Your task to perform on an android device: turn off data saver in the chrome app Image 0: 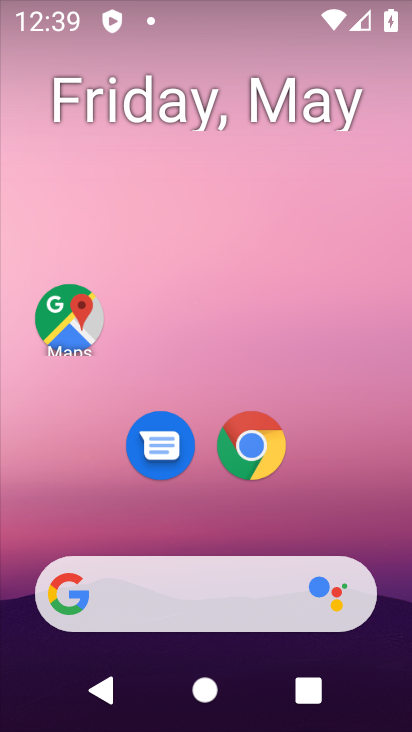
Step 0: click (254, 445)
Your task to perform on an android device: turn off data saver in the chrome app Image 1: 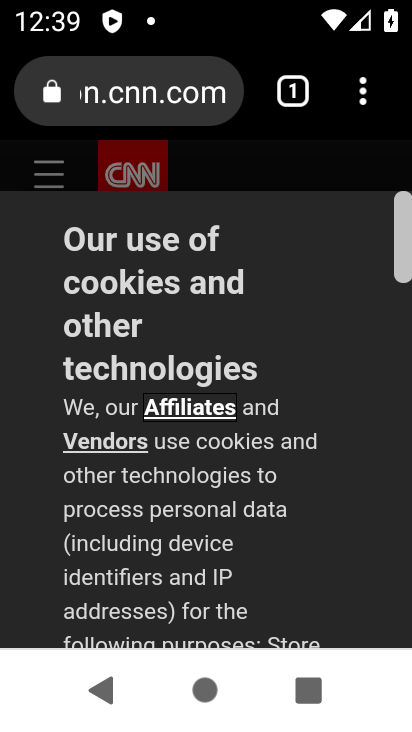
Step 1: click (358, 85)
Your task to perform on an android device: turn off data saver in the chrome app Image 2: 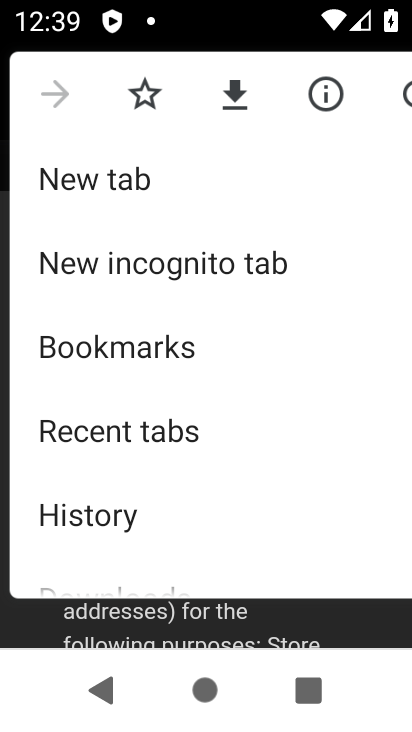
Step 2: drag from (242, 569) to (286, 167)
Your task to perform on an android device: turn off data saver in the chrome app Image 3: 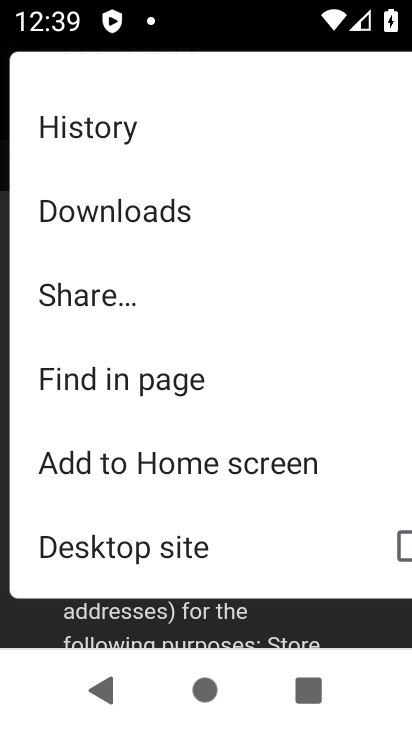
Step 3: drag from (280, 536) to (334, 78)
Your task to perform on an android device: turn off data saver in the chrome app Image 4: 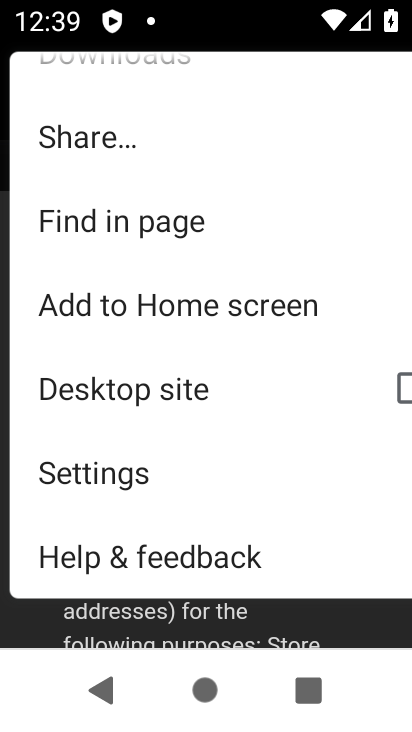
Step 4: click (114, 465)
Your task to perform on an android device: turn off data saver in the chrome app Image 5: 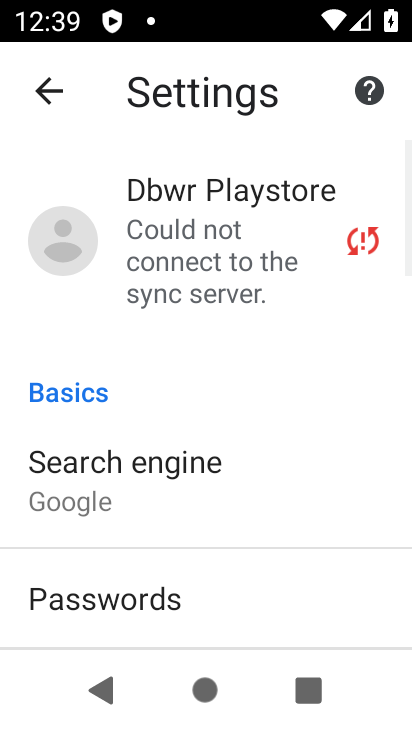
Step 5: drag from (267, 576) to (238, 183)
Your task to perform on an android device: turn off data saver in the chrome app Image 6: 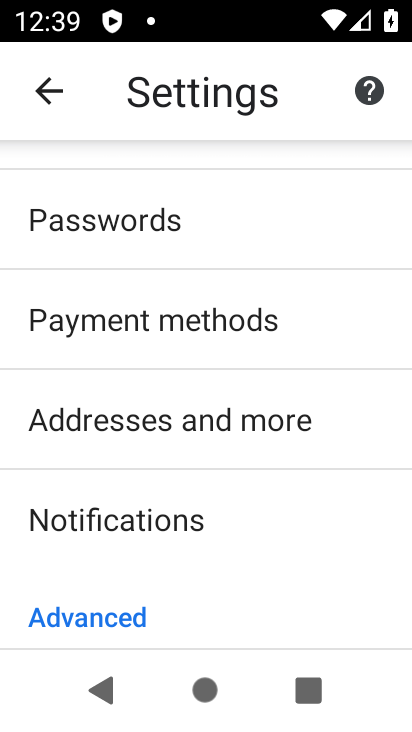
Step 6: drag from (242, 581) to (329, 130)
Your task to perform on an android device: turn off data saver in the chrome app Image 7: 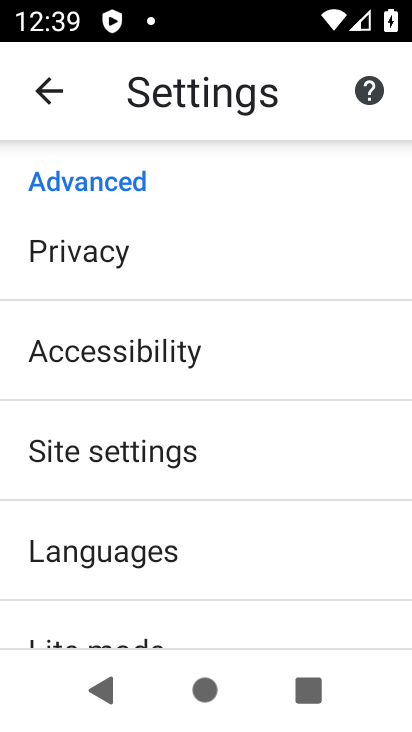
Step 7: drag from (276, 612) to (292, 260)
Your task to perform on an android device: turn off data saver in the chrome app Image 8: 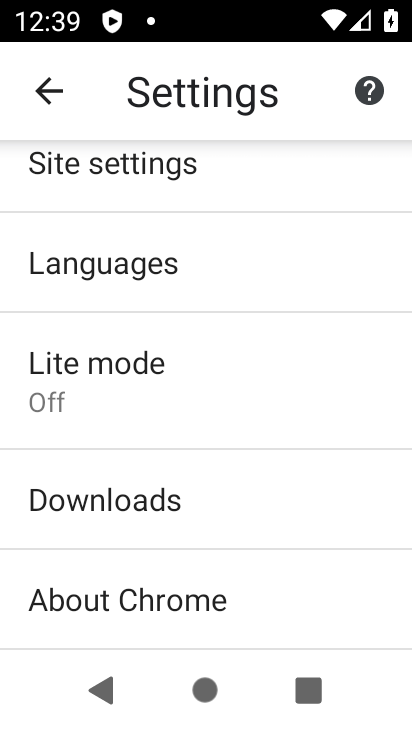
Step 8: click (56, 382)
Your task to perform on an android device: turn off data saver in the chrome app Image 9: 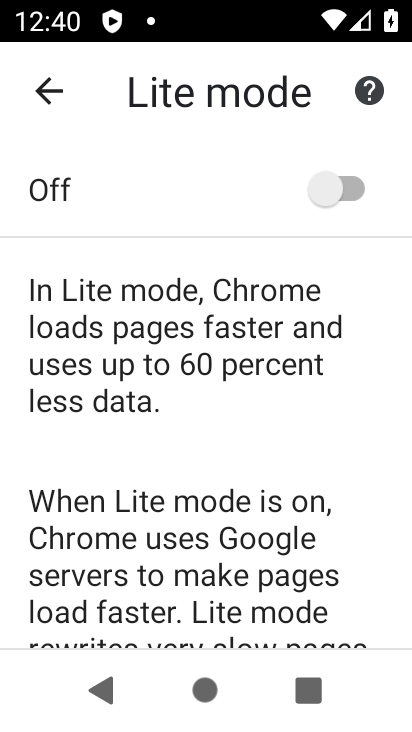
Step 9: task complete